Your task to perform on an android device: Search for the best rated 4K TV on Best Buy. Image 0: 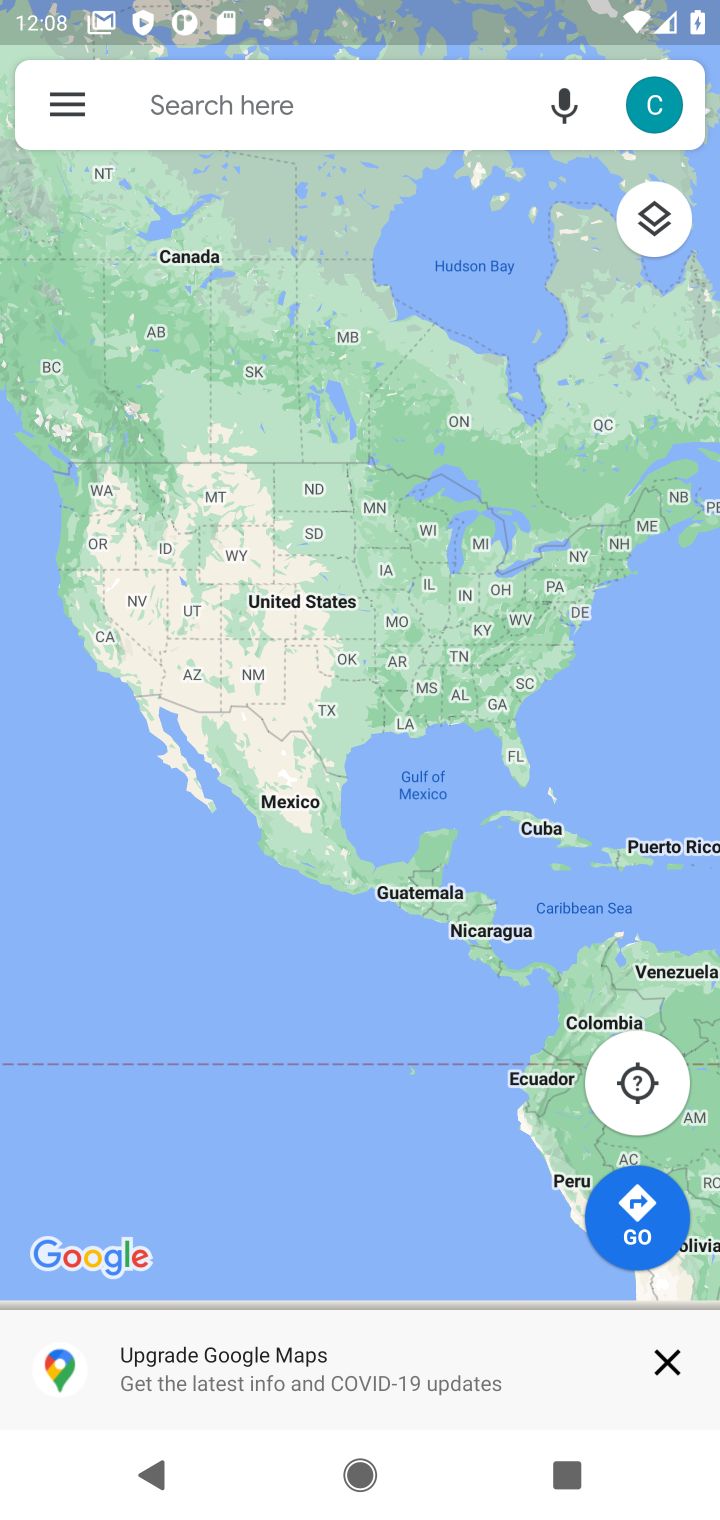
Step 0: click (385, 105)
Your task to perform on an android device: Search for the best rated 4K TV on Best Buy. Image 1: 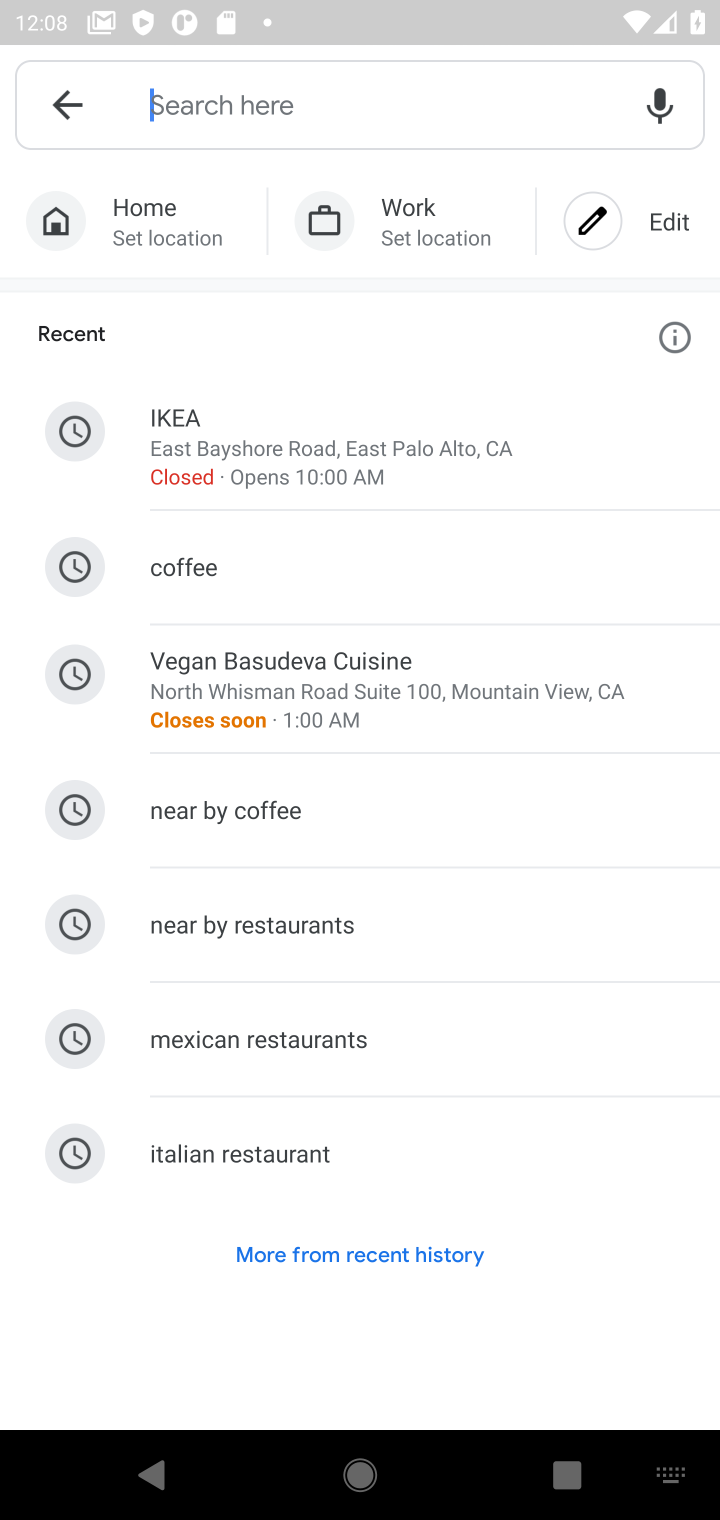
Step 1: press home button
Your task to perform on an android device: Search for the best rated 4K TV on Best Buy. Image 2: 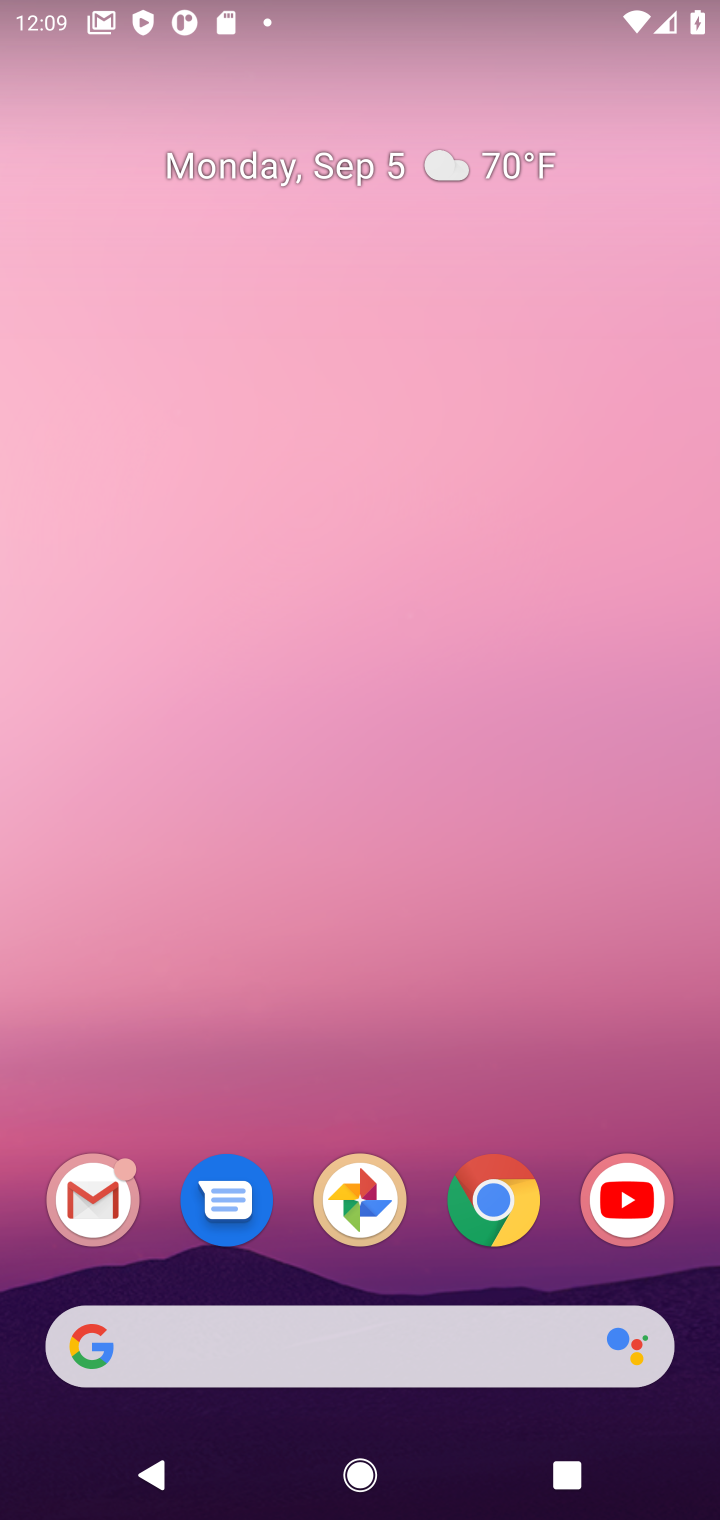
Step 2: click (506, 1188)
Your task to perform on an android device: Search for the best rated 4K TV on Best Buy. Image 3: 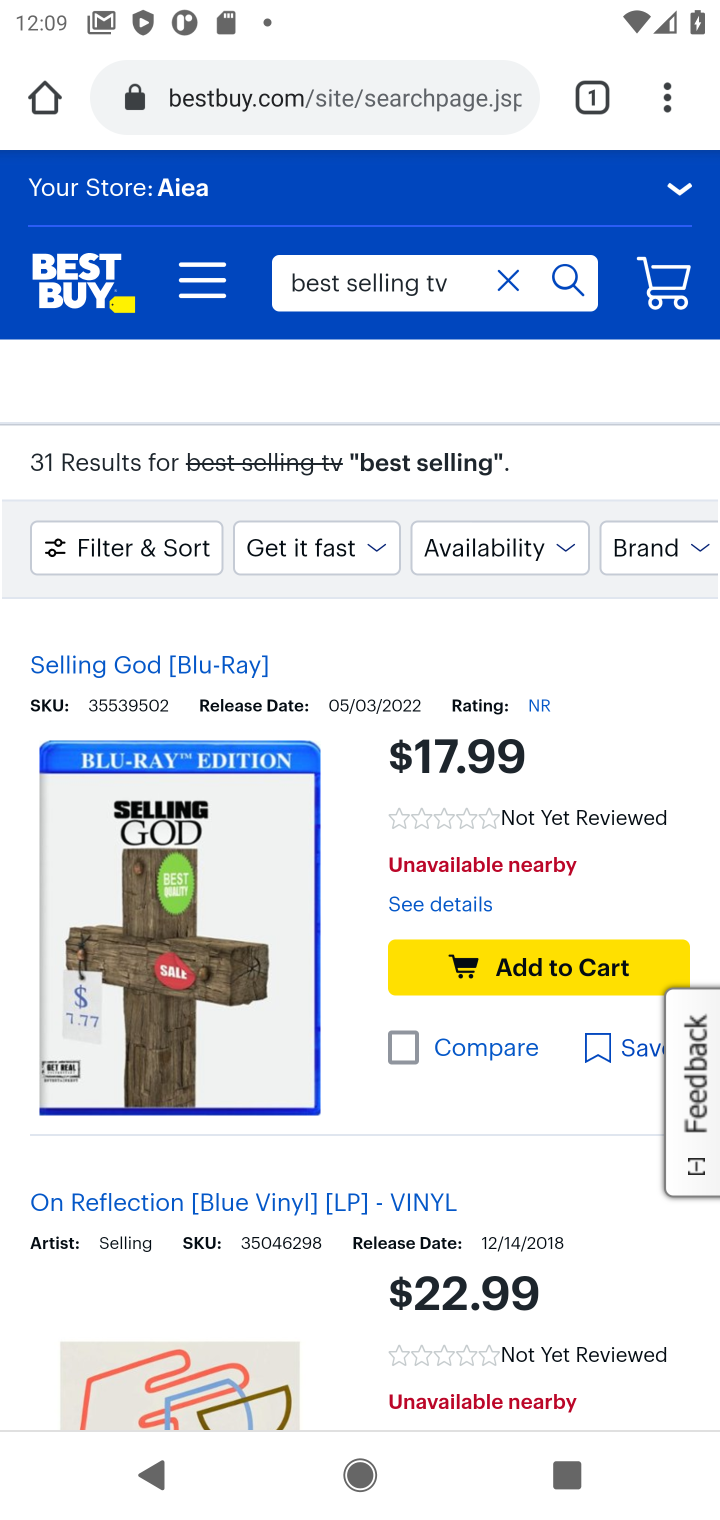
Step 3: click (509, 274)
Your task to perform on an android device: Search for the best rated 4K TV on Best Buy. Image 4: 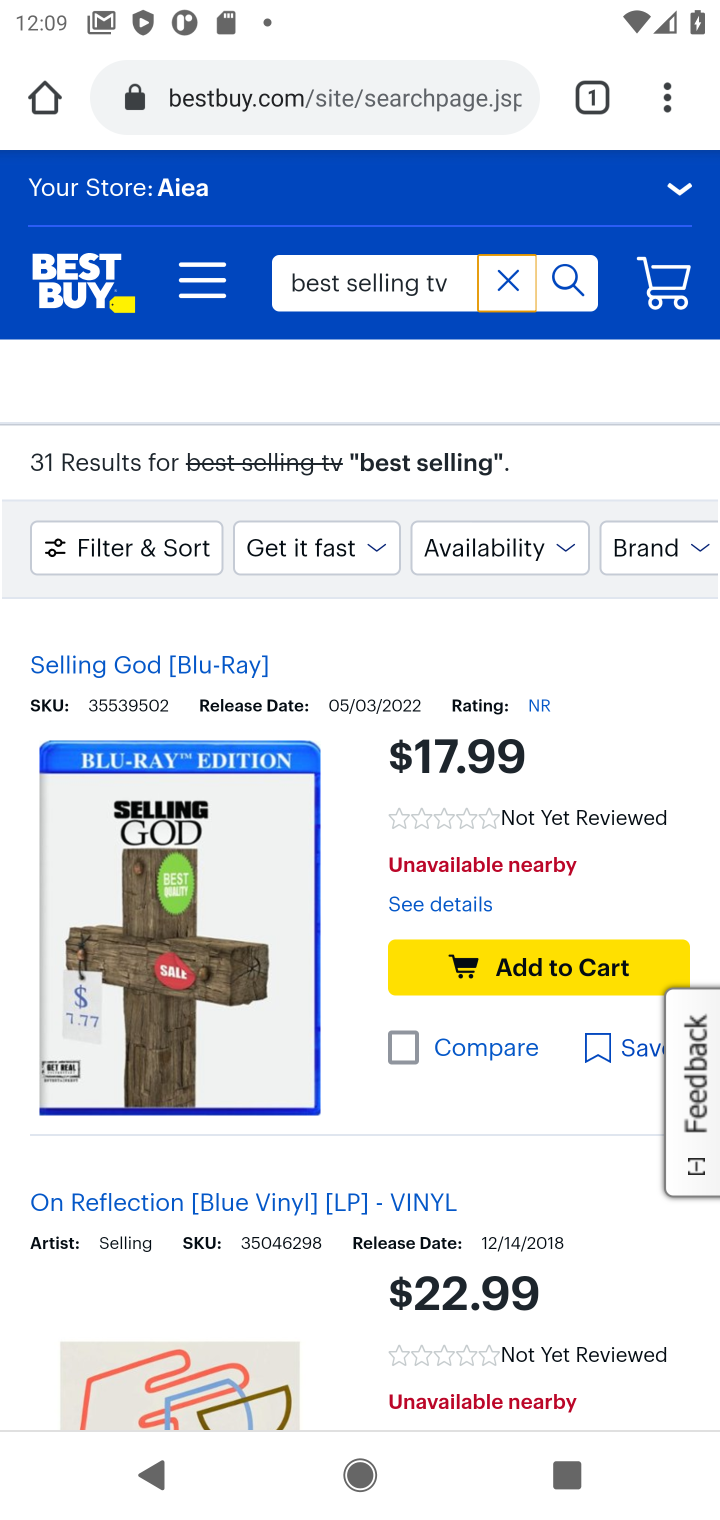
Step 4: click (492, 302)
Your task to perform on an android device: Search for the best rated 4K TV on Best Buy. Image 5: 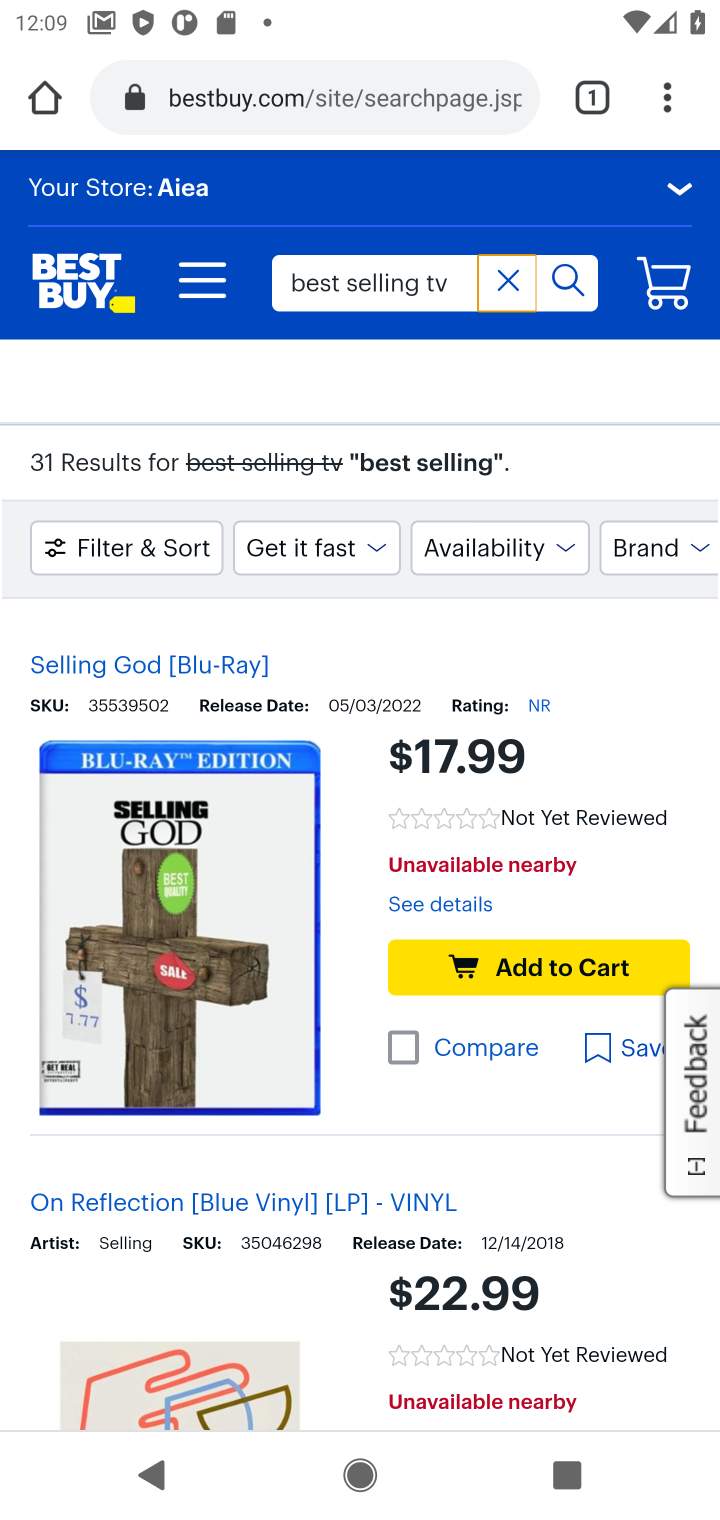
Step 5: click (502, 274)
Your task to perform on an android device: Search for the best rated 4K TV on Best Buy. Image 6: 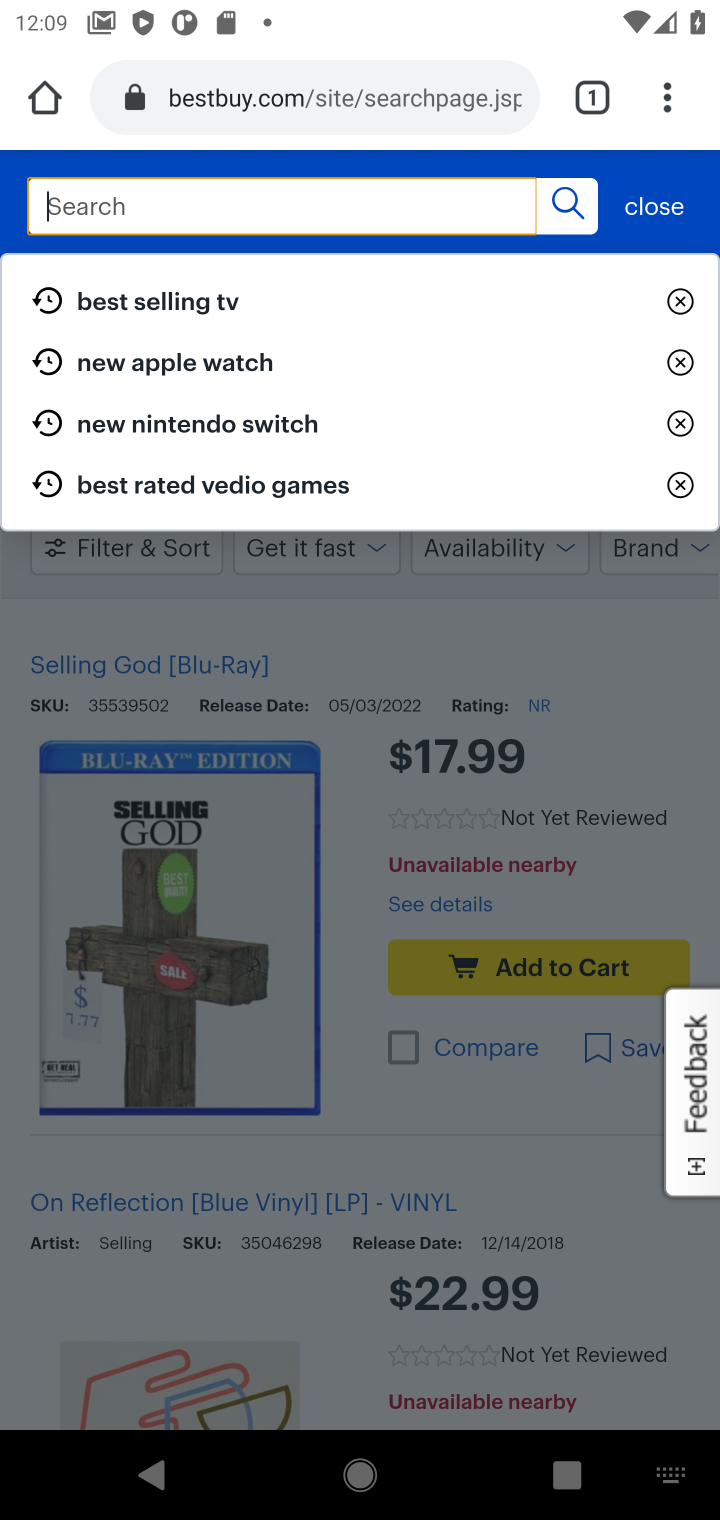
Step 6: type "best rated 4k TV"
Your task to perform on an android device: Search for the best rated 4K TV on Best Buy. Image 7: 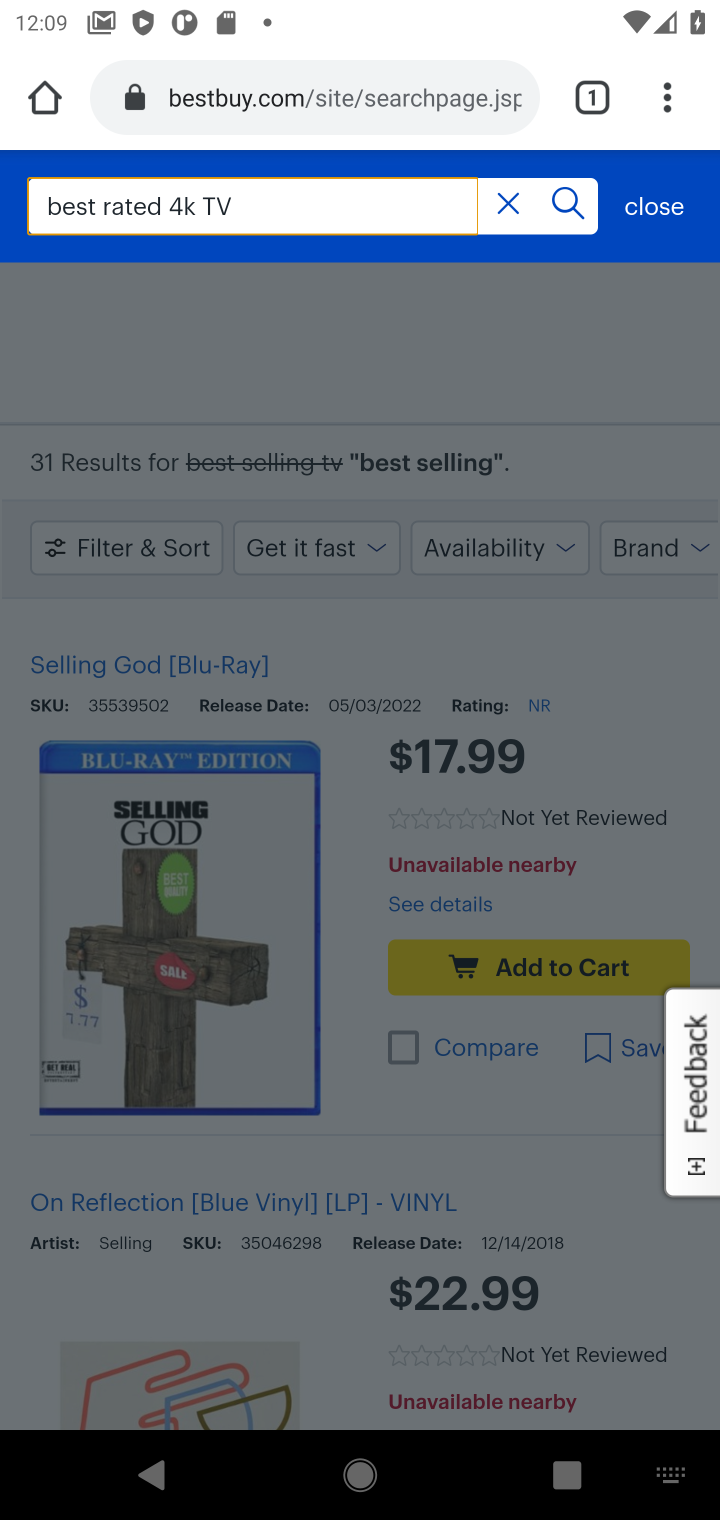
Step 7: click (571, 207)
Your task to perform on an android device: Search for the best rated 4K TV on Best Buy. Image 8: 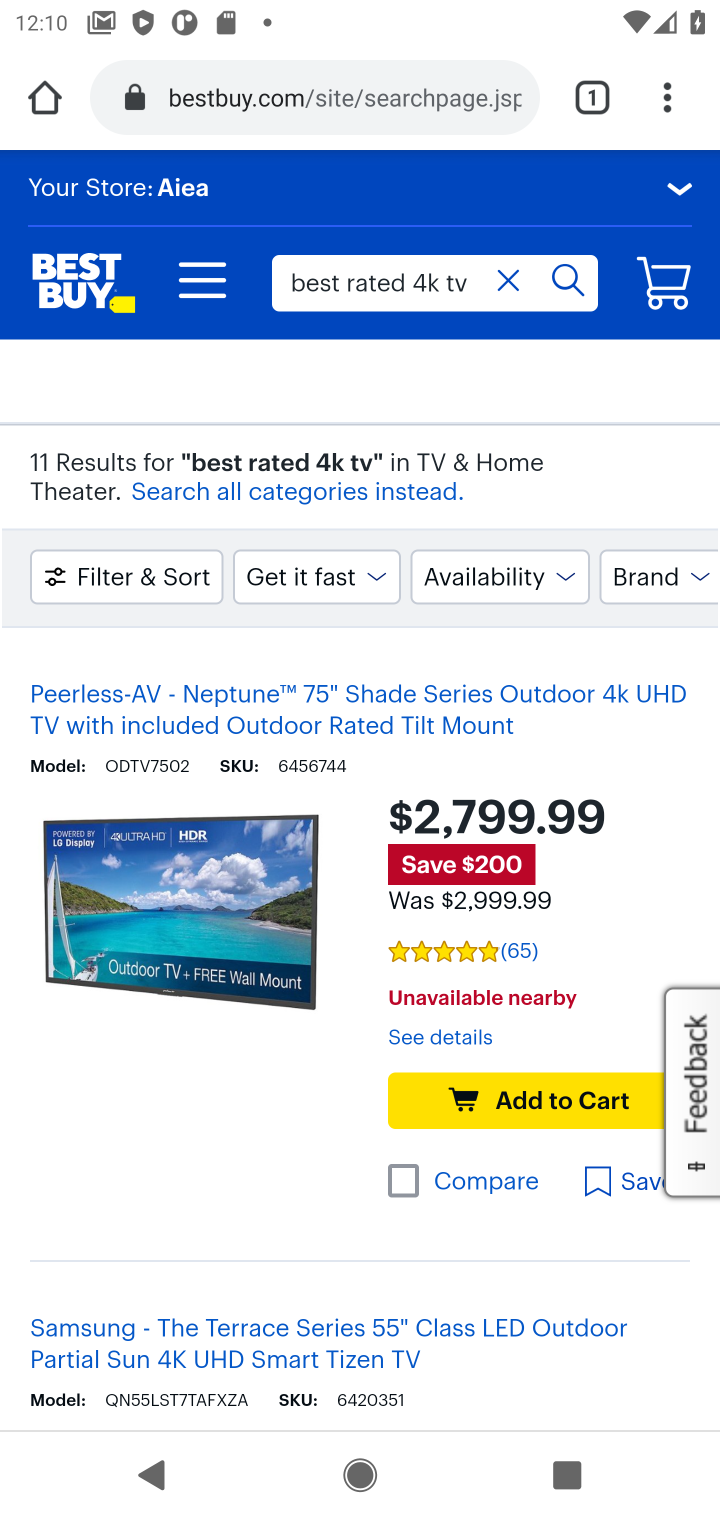
Step 8: task complete